Your task to perform on an android device: turn notification dots on Image 0: 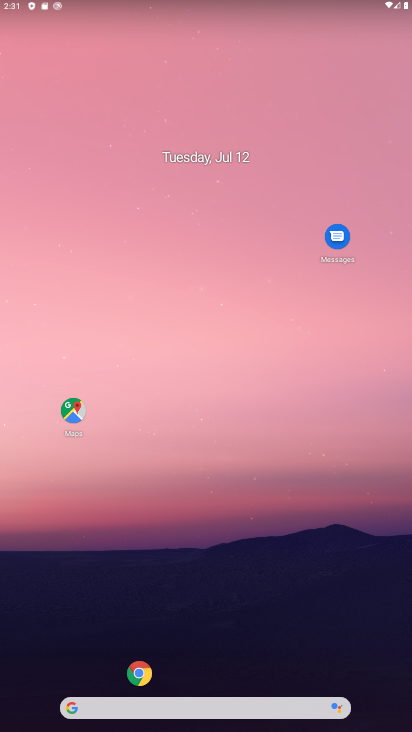
Step 0: drag from (50, 692) to (337, 43)
Your task to perform on an android device: turn notification dots on Image 1: 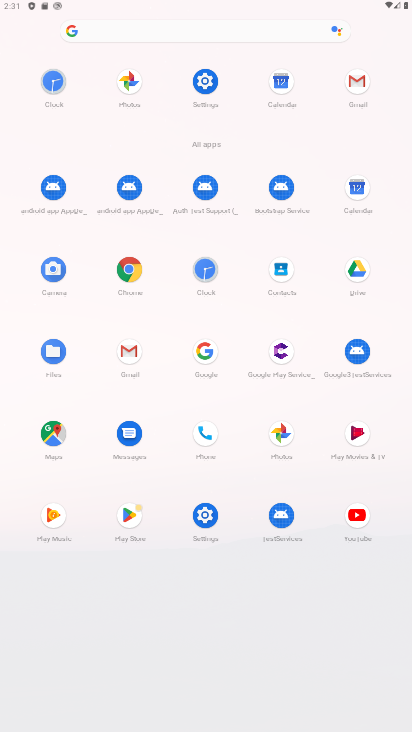
Step 1: click (208, 532)
Your task to perform on an android device: turn notification dots on Image 2: 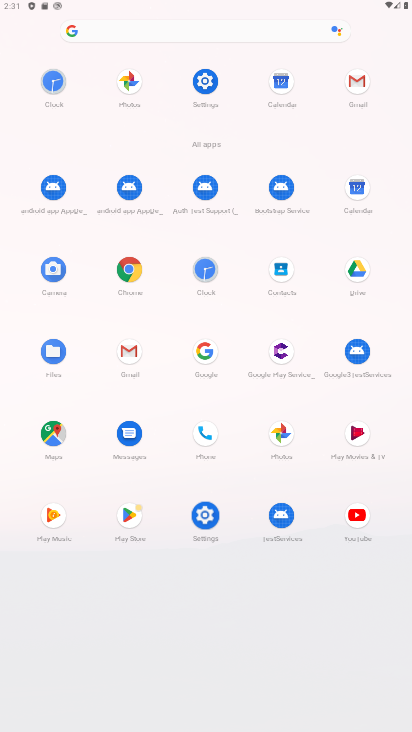
Step 2: click (205, 523)
Your task to perform on an android device: turn notification dots on Image 3: 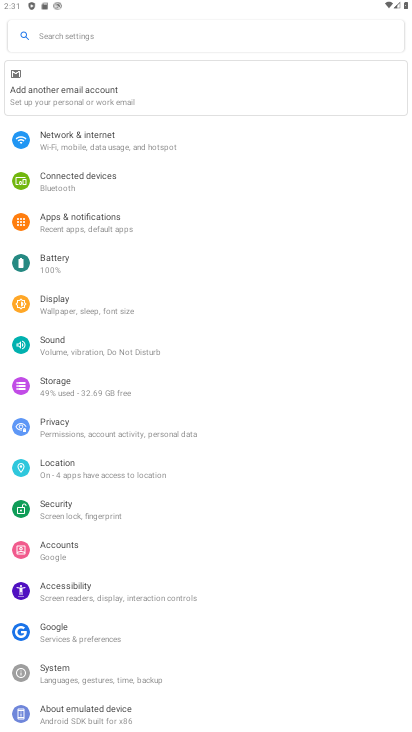
Step 3: click (83, 224)
Your task to perform on an android device: turn notification dots on Image 4: 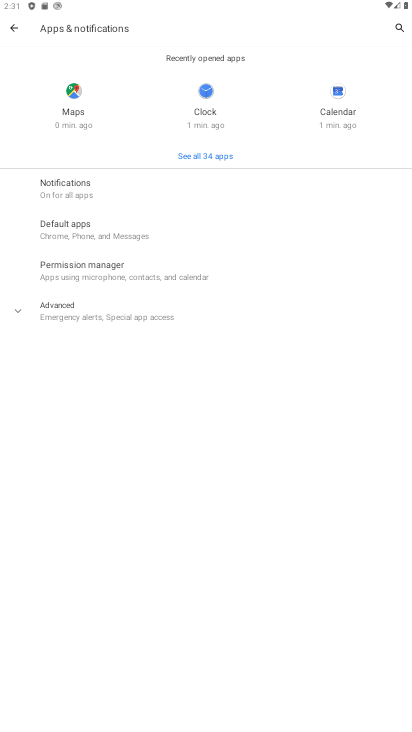
Step 4: click (97, 312)
Your task to perform on an android device: turn notification dots on Image 5: 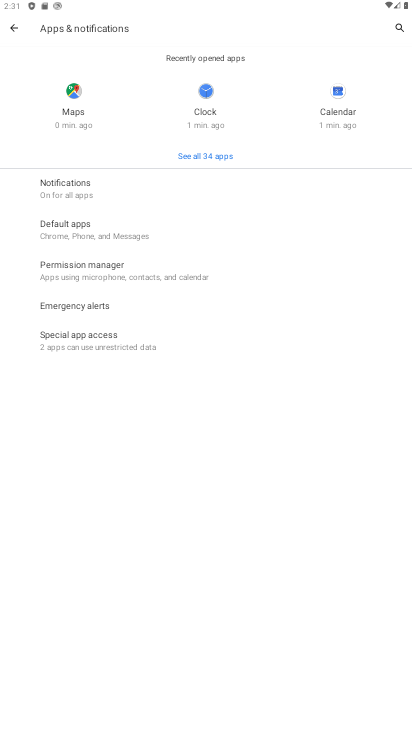
Step 5: click (89, 338)
Your task to perform on an android device: turn notification dots on Image 6: 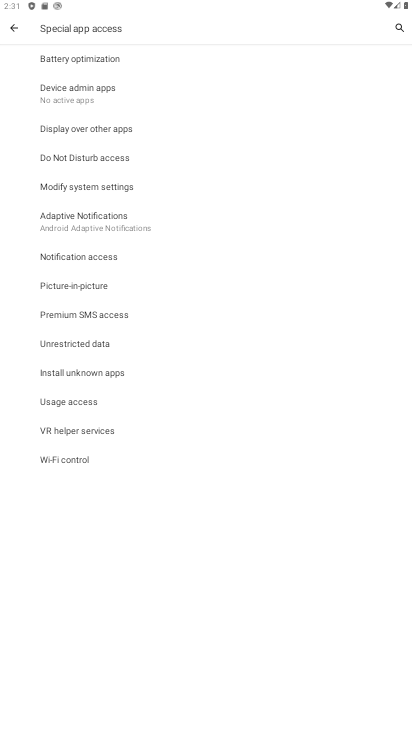
Step 6: click (17, 28)
Your task to perform on an android device: turn notification dots on Image 7: 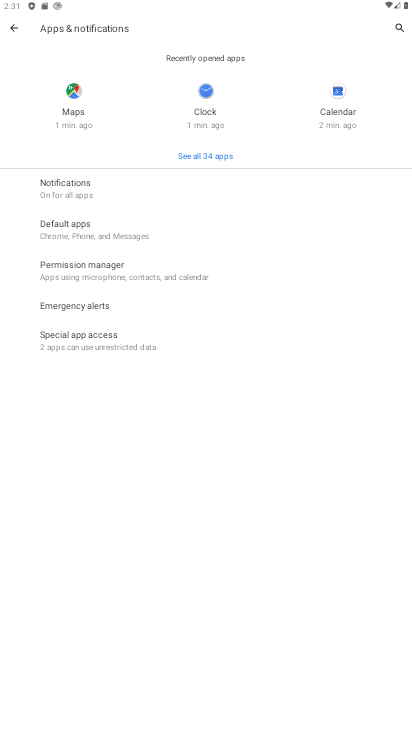
Step 7: click (92, 181)
Your task to perform on an android device: turn notification dots on Image 8: 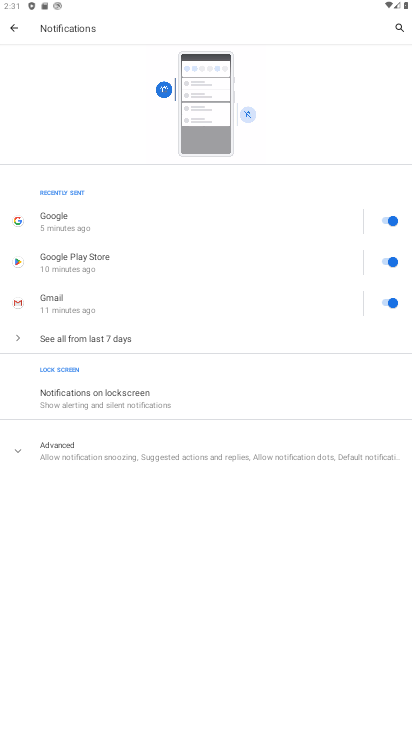
Step 8: click (84, 462)
Your task to perform on an android device: turn notification dots on Image 9: 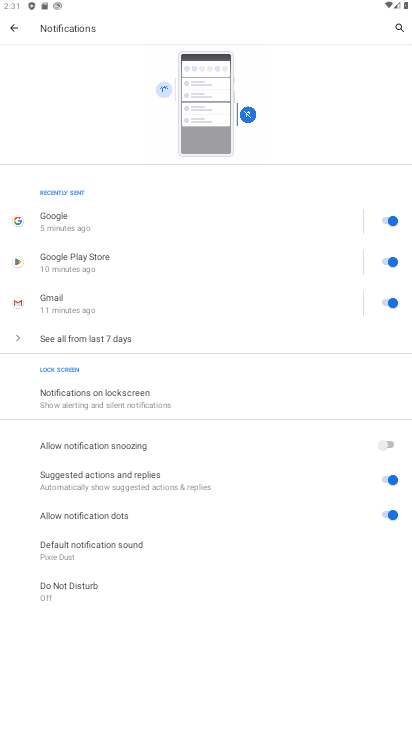
Step 9: task complete